Your task to perform on an android device: What's the weather today? Image 0: 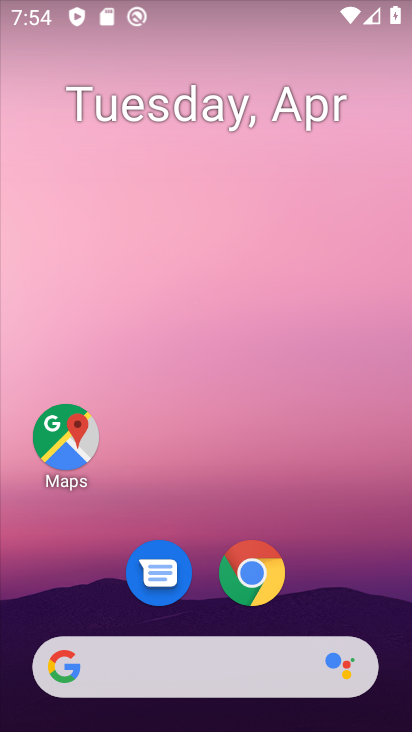
Step 0: click (59, 672)
Your task to perform on an android device: What's the weather today? Image 1: 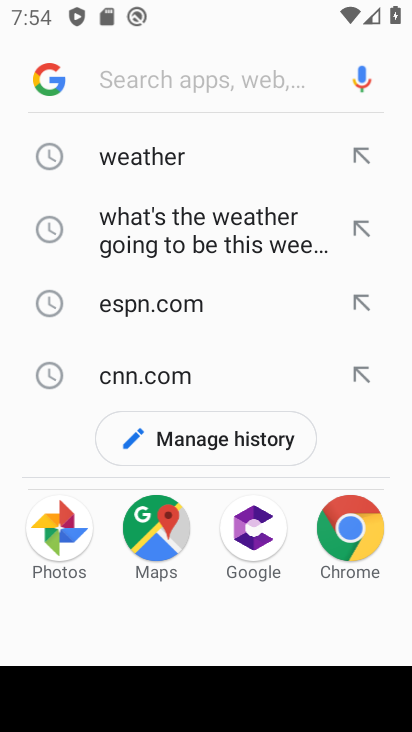
Step 1: click (199, 164)
Your task to perform on an android device: What's the weather today? Image 2: 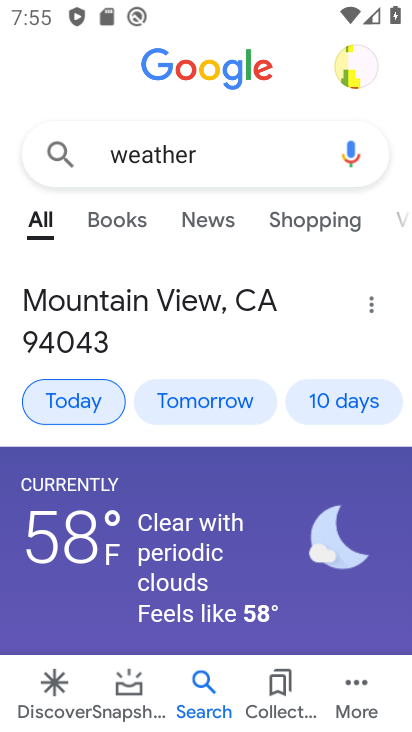
Step 2: task complete